Your task to perform on an android device: remove spam from my inbox in the gmail app Image 0: 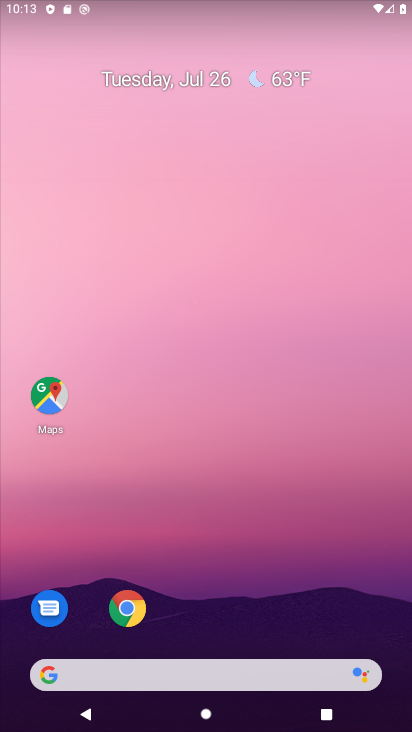
Step 0: press home button
Your task to perform on an android device: remove spam from my inbox in the gmail app Image 1: 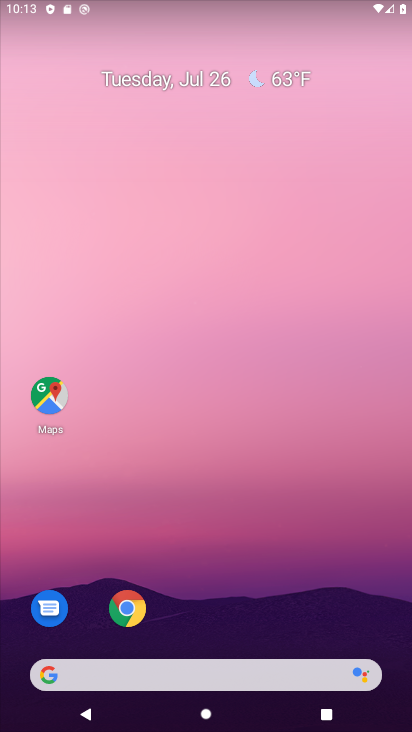
Step 1: drag from (269, 599) to (256, 29)
Your task to perform on an android device: remove spam from my inbox in the gmail app Image 2: 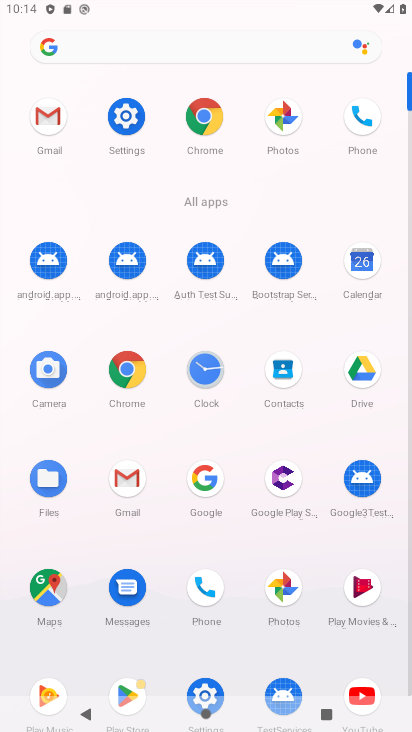
Step 2: click (43, 122)
Your task to perform on an android device: remove spam from my inbox in the gmail app Image 3: 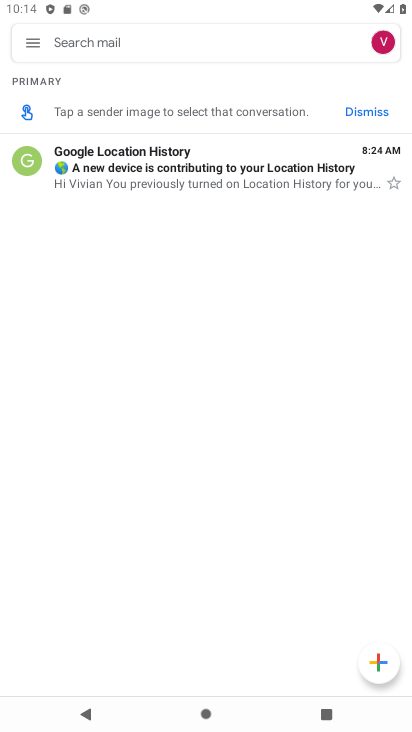
Step 3: click (185, 165)
Your task to perform on an android device: remove spam from my inbox in the gmail app Image 4: 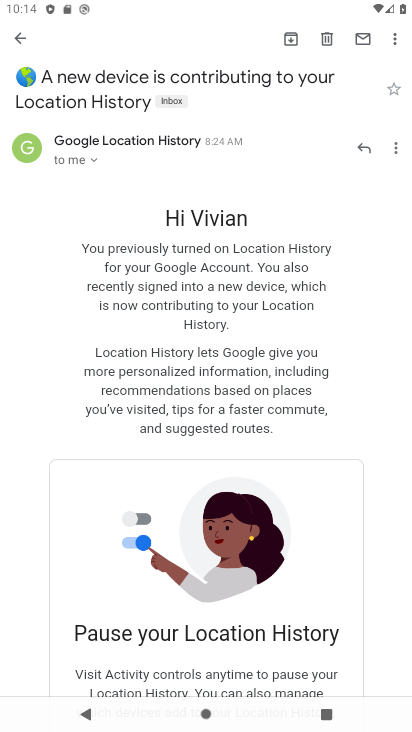
Step 4: click (398, 31)
Your task to perform on an android device: remove spam from my inbox in the gmail app Image 5: 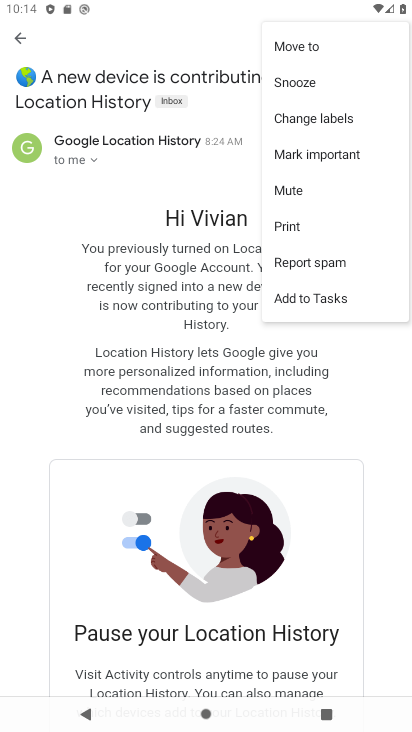
Step 5: click (296, 258)
Your task to perform on an android device: remove spam from my inbox in the gmail app Image 6: 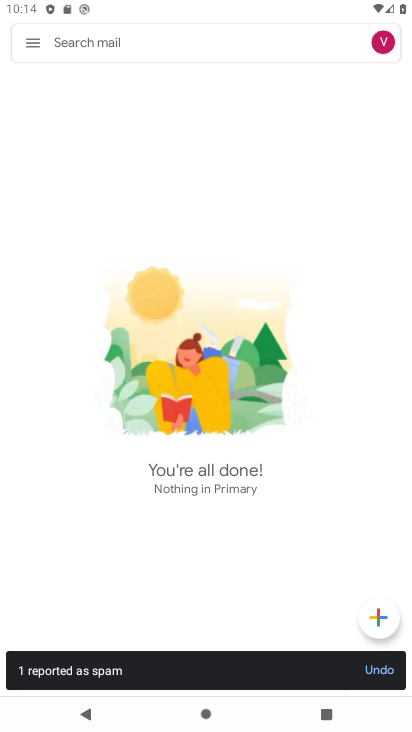
Step 6: task complete